Your task to perform on an android device: turn vacation reply on in the gmail app Image 0: 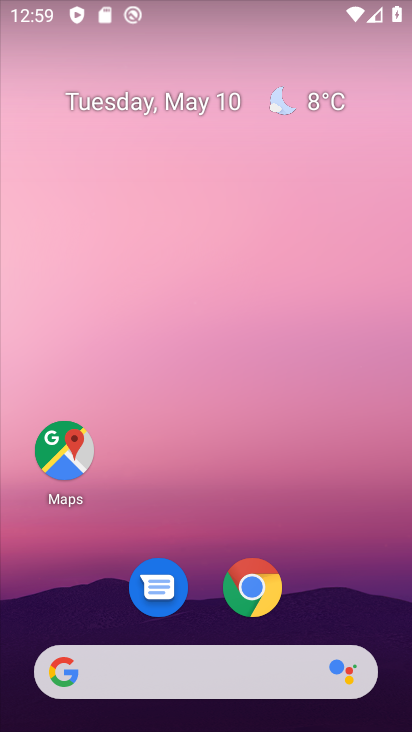
Step 0: drag from (350, 588) to (295, 164)
Your task to perform on an android device: turn vacation reply on in the gmail app Image 1: 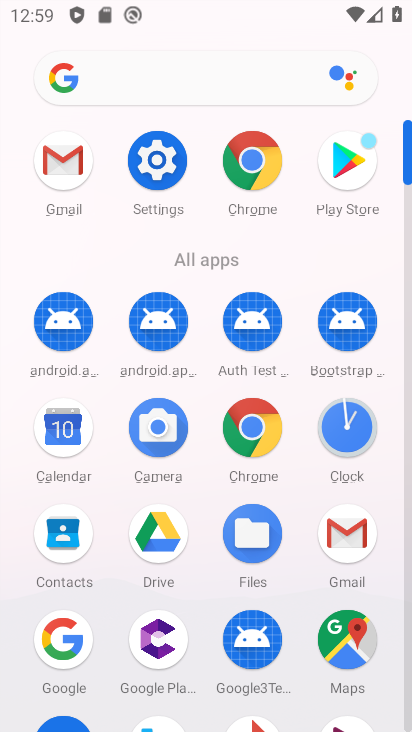
Step 1: click (347, 543)
Your task to perform on an android device: turn vacation reply on in the gmail app Image 2: 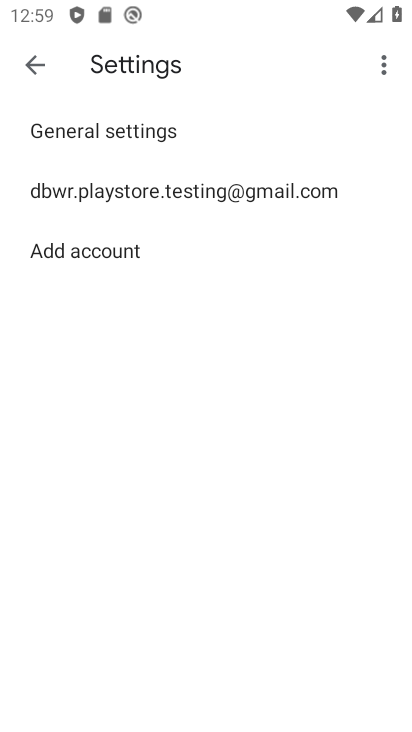
Step 2: click (128, 187)
Your task to perform on an android device: turn vacation reply on in the gmail app Image 3: 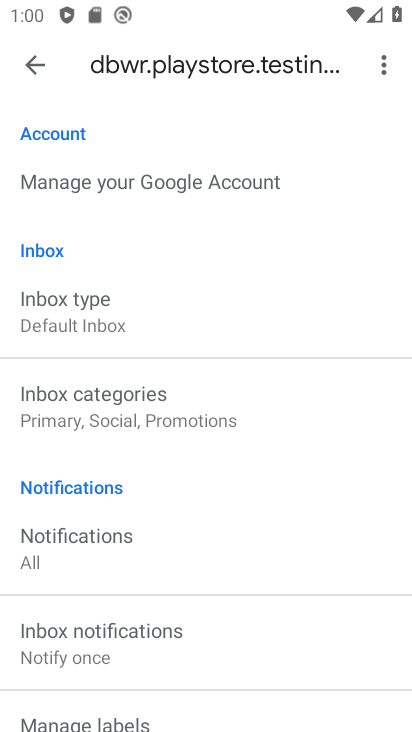
Step 3: drag from (131, 608) to (97, 294)
Your task to perform on an android device: turn vacation reply on in the gmail app Image 4: 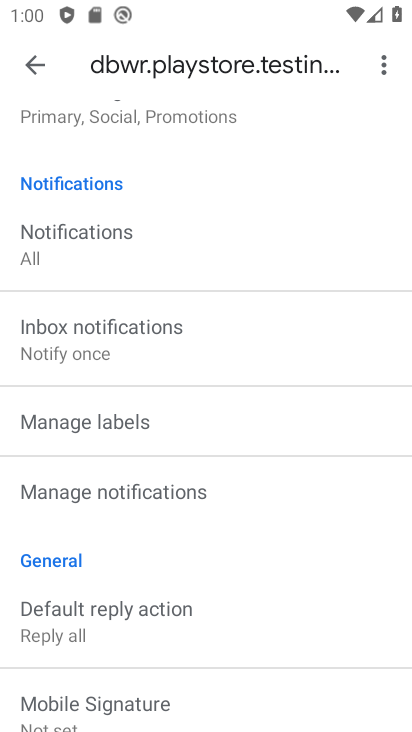
Step 4: drag from (158, 614) to (156, 280)
Your task to perform on an android device: turn vacation reply on in the gmail app Image 5: 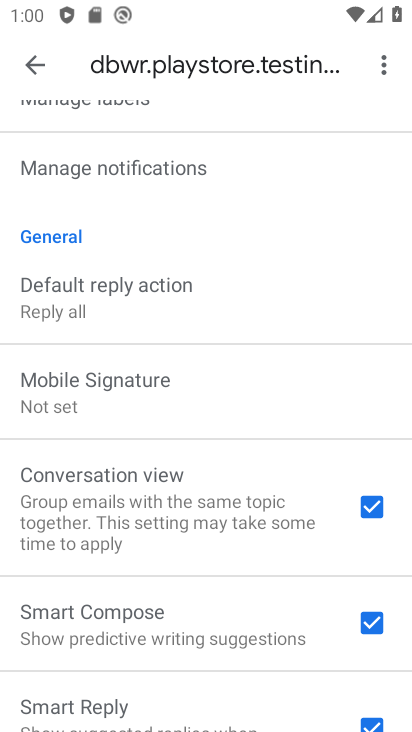
Step 5: drag from (180, 632) to (178, 312)
Your task to perform on an android device: turn vacation reply on in the gmail app Image 6: 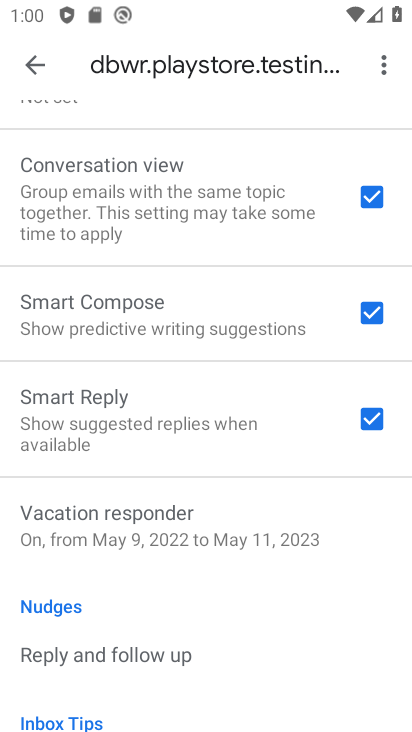
Step 6: click (199, 506)
Your task to perform on an android device: turn vacation reply on in the gmail app Image 7: 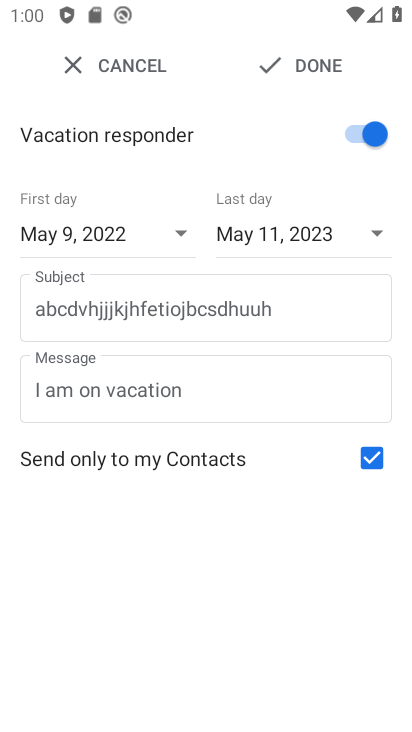
Step 7: task complete